Your task to perform on an android device: turn on sleep mode Image 0: 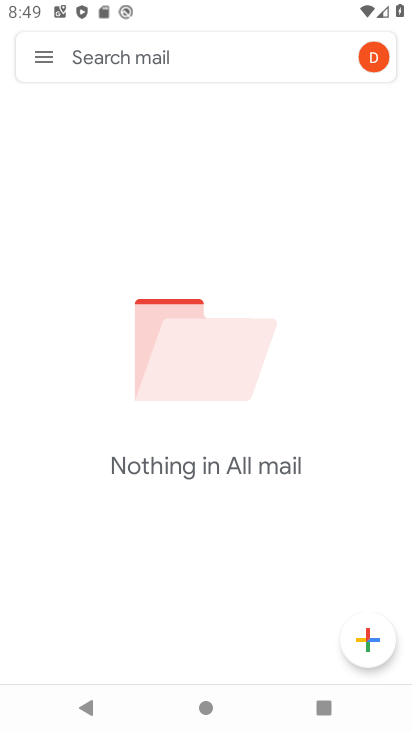
Step 0: press home button
Your task to perform on an android device: turn on sleep mode Image 1: 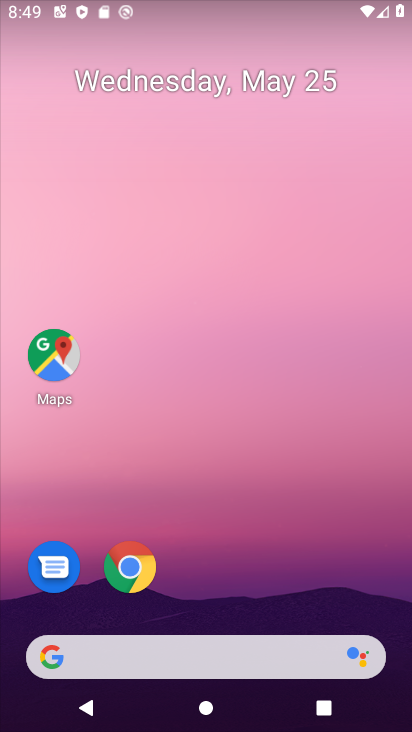
Step 1: drag from (312, 570) to (247, 183)
Your task to perform on an android device: turn on sleep mode Image 2: 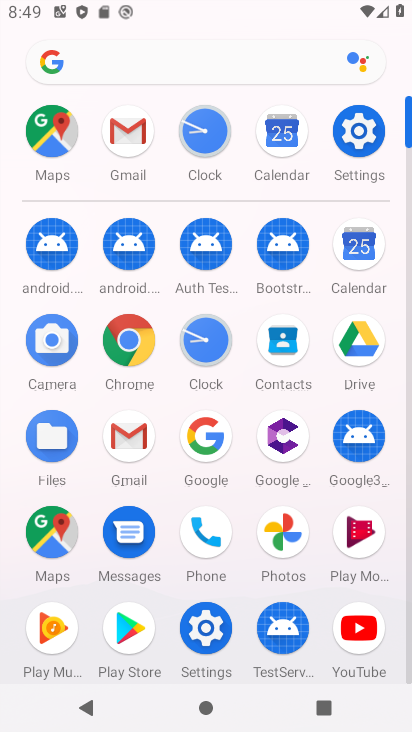
Step 2: click (349, 134)
Your task to perform on an android device: turn on sleep mode Image 3: 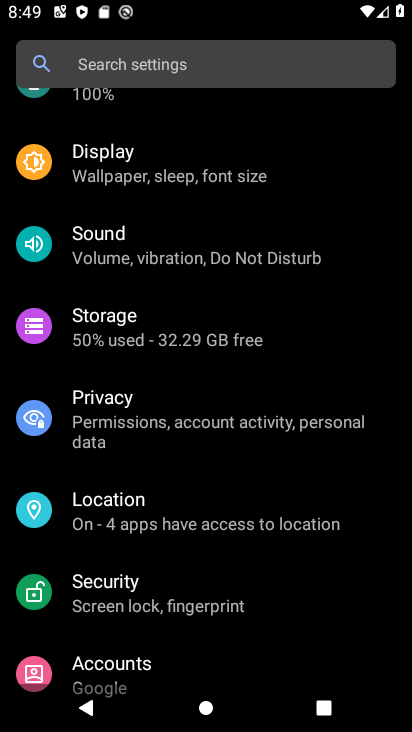
Step 3: click (238, 194)
Your task to perform on an android device: turn on sleep mode Image 4: 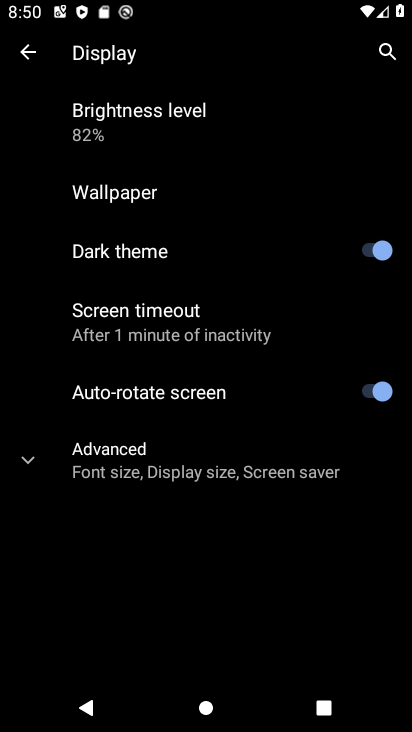
Step 4: click (169, 313)
Your task to perform on an android device: turn on sleep mode Image 5: 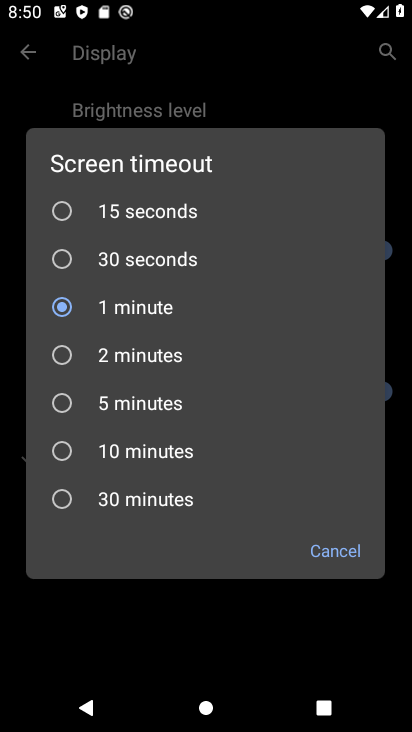
Step 5: click (181, 227)
Your task to perform on an android device: turn on sleep mode Image 6: 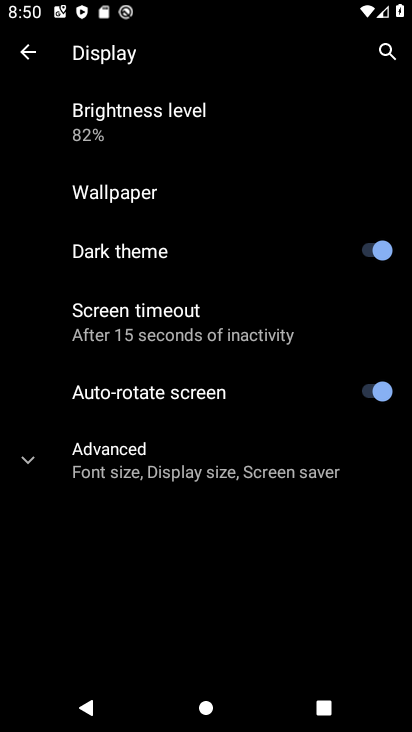
Step 6: task complete